Your task to perform on an android device: Show me recent news Image 0: 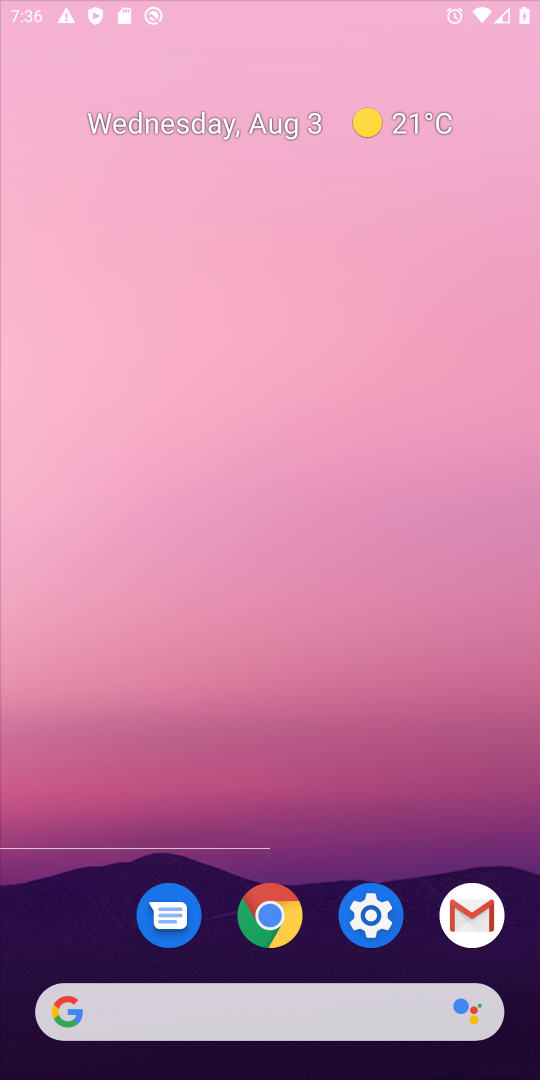
Step 0: press home button
Your task to perform on an android device: Show me recent news Image 1: 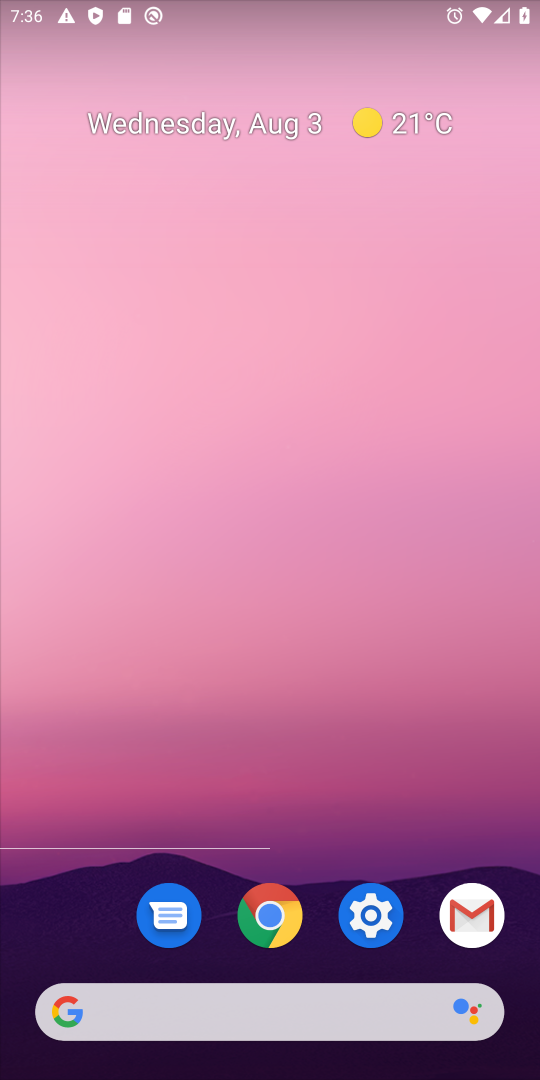
Step 1: click (177, 1007)
Your task to perform on an android device: Show me recent news Image 2: 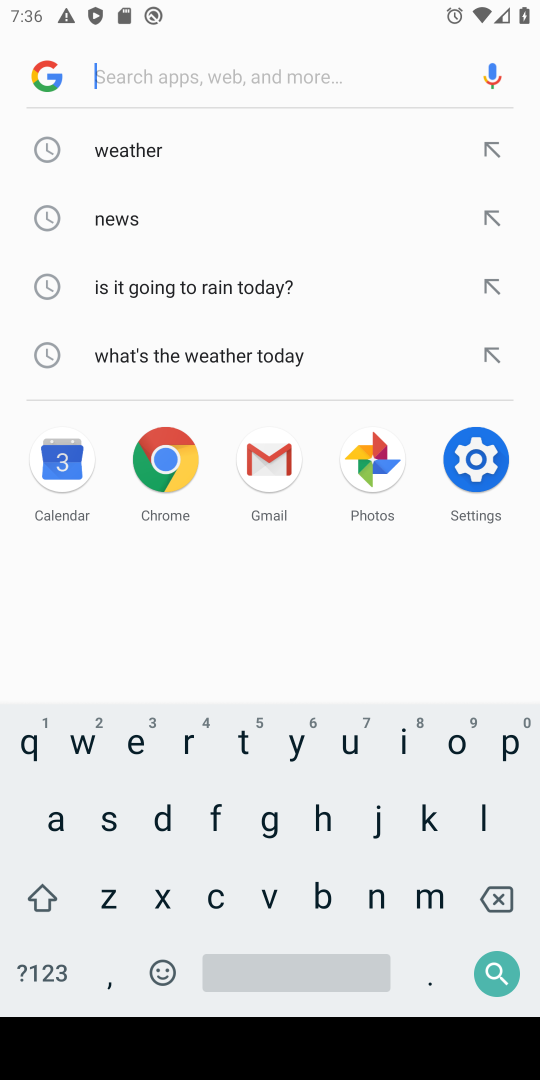
Step 2: click (180, 736)
Your task to perform on an android device: Show me recent news Image 3: 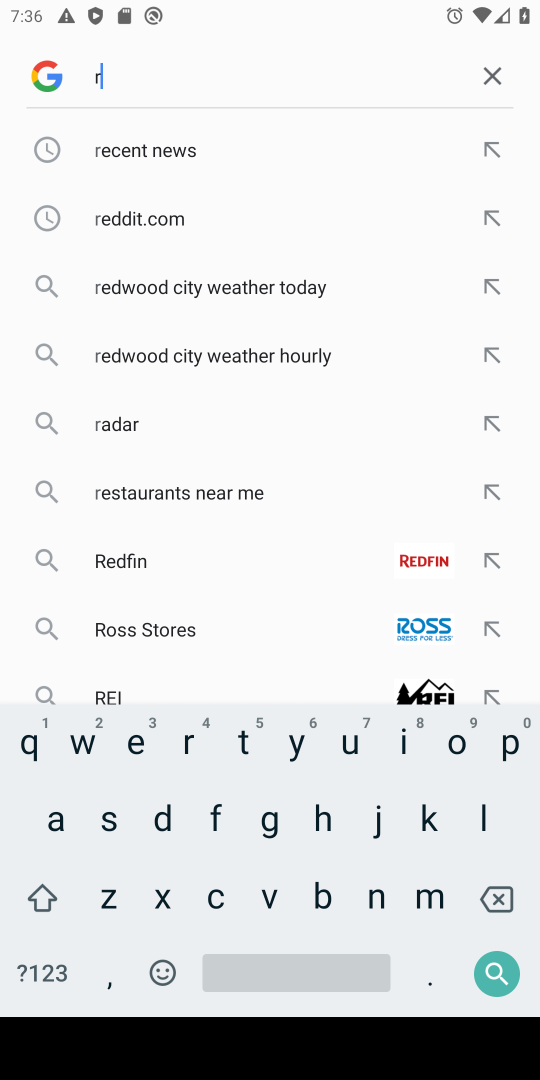
Step 3: click (227, 138)
Your task to perform on an android device: Show me recent news Image 4: 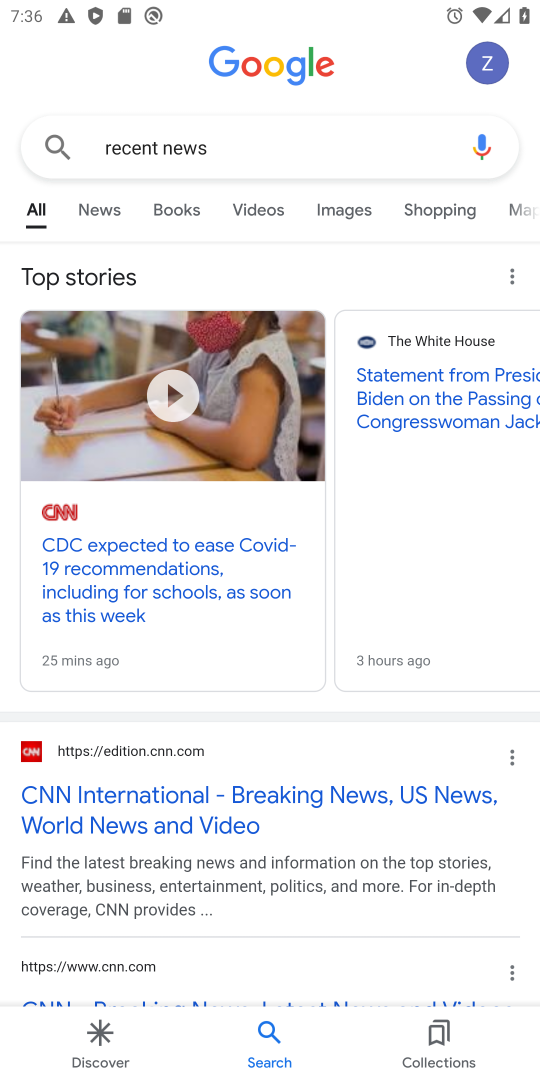
Step 4: task complete